Your task to perform on an android device: Search for seafood restaurants on Google Maps Image 0: 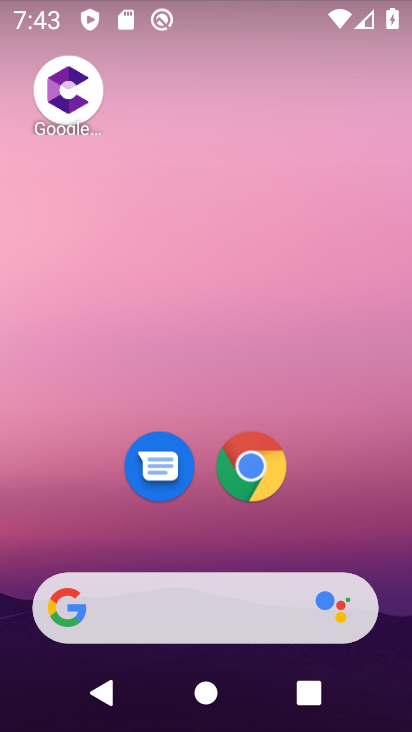
Step 0: drag from (205, 540) to (209, 3)
Your task to perform on an android device: Search for seafood restaurants on Google Maps Image 1: 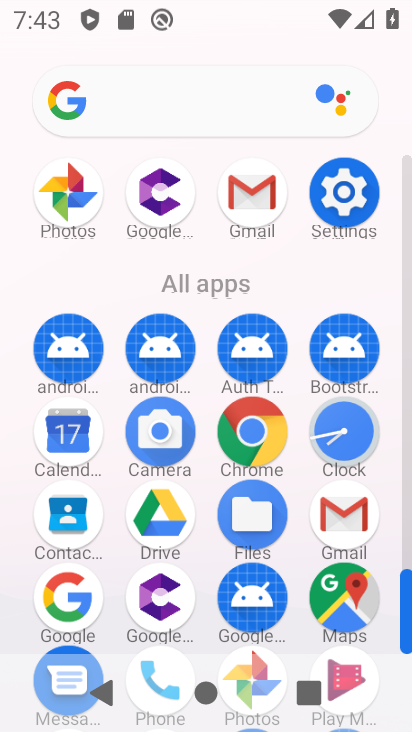
Step 1: click (350, 594)
Your task to perform on an android device: Search for seafood restaurants on Google Maps Image 2: 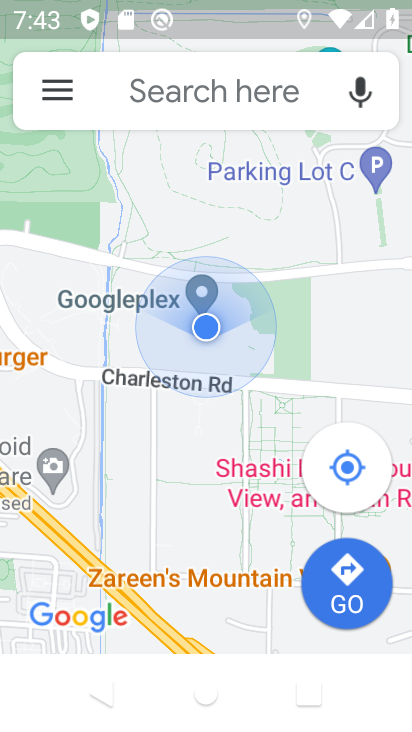
Step 2: click (178, 93)
Your task to perform on an android device: Search for seafood restaurants on Google Maps Image 3: 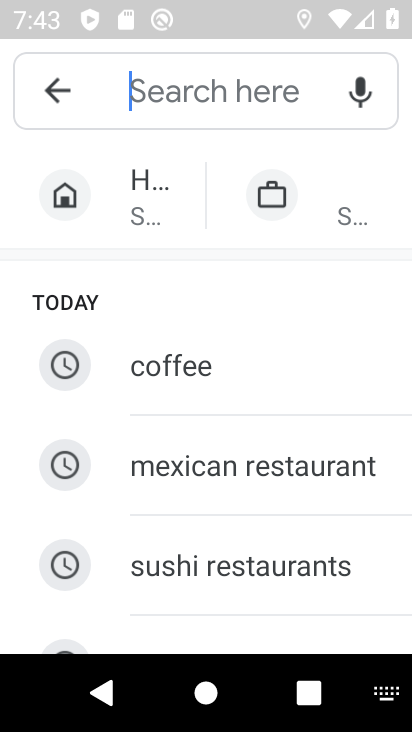
Step 3: drag from (211, 551) to (219, 180)
Your task to perform on an android device: Search for seafood restaurants on Google Maps Image 4: 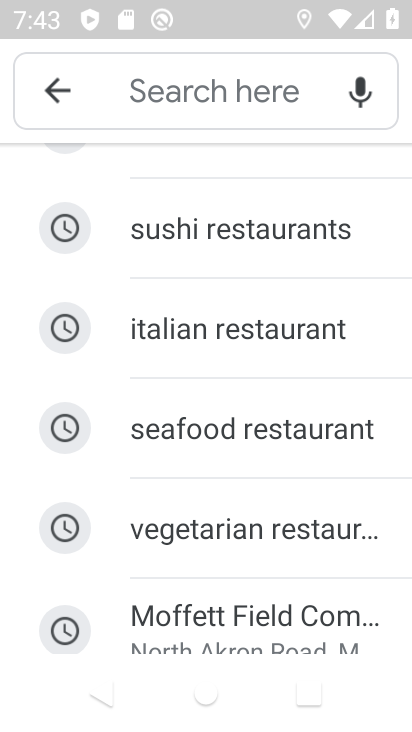
Step 4: click (174, 424)
Your task to perform on an android device: Search for seafood restaurants on Google Maps Image 5: 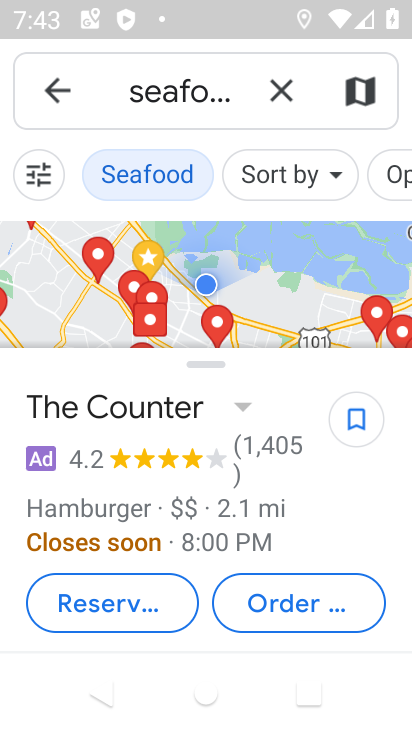
Step 5: task complete